Your task to perform on an android device: see sites visited before in the chrome app Image 0: 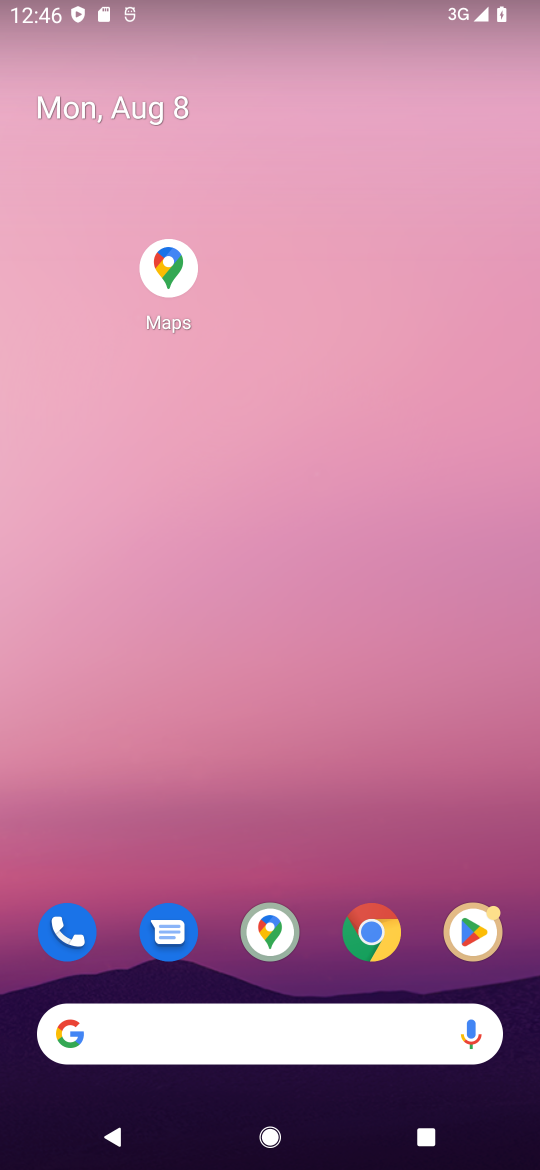
Step 0: click (384, 926)
Your task to perform on an android device: see sites visited before in the chrome app Image 1: 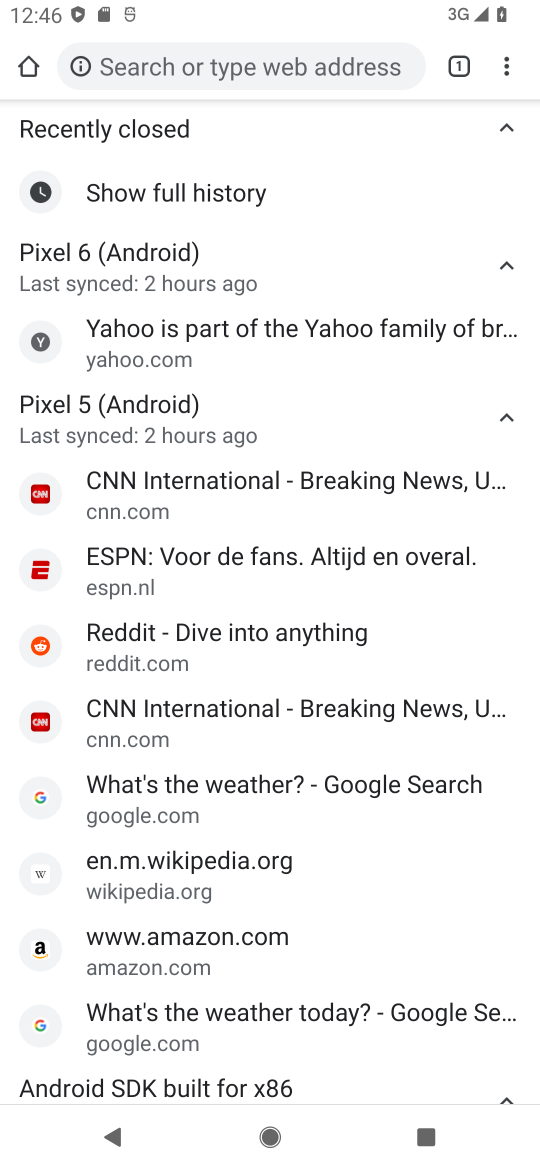
Step 1: task complete